Your task to perform on an android device: toggle translation in the chrome app Image 0: 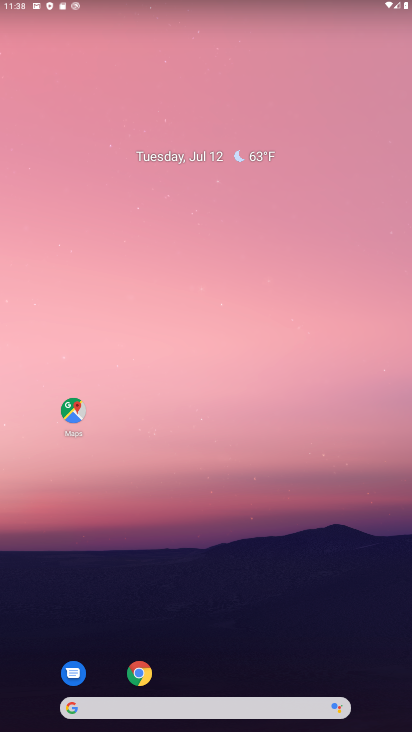
Step 0: drag from (280, 625) to (231, 221)
Your task to perform on an android device: toggle translation in the chrome app Image 1: 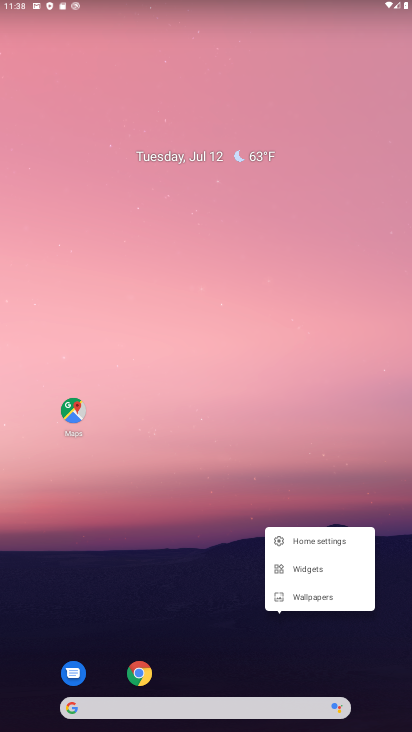
Step 1: click (127, 679)
Your task to perform on an android device: toggle translation in the chrome app Image 2: 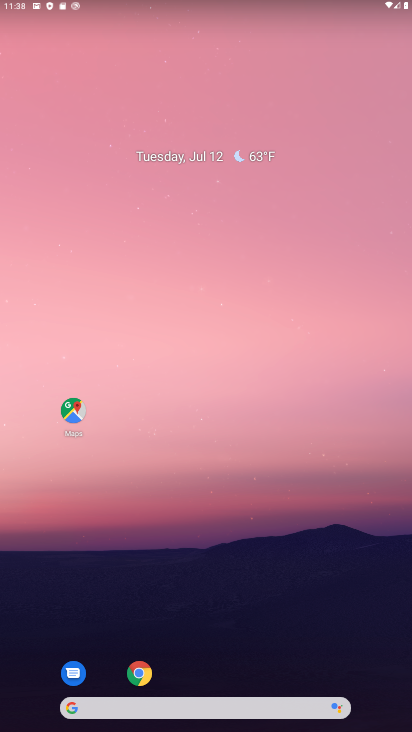
Step 2: click (137, 678)
Your task to perform on an android device: toggle translation in the chrome app Image 3: 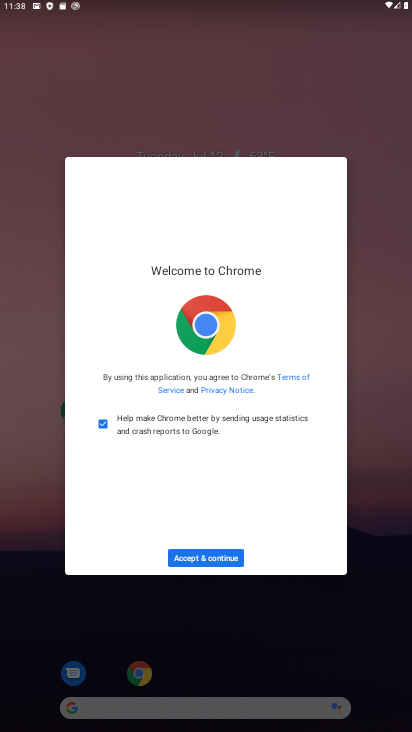
Step 3: click (206, 553)
Your task to perform on an android device: toggle translation in the chrome app Image 4: 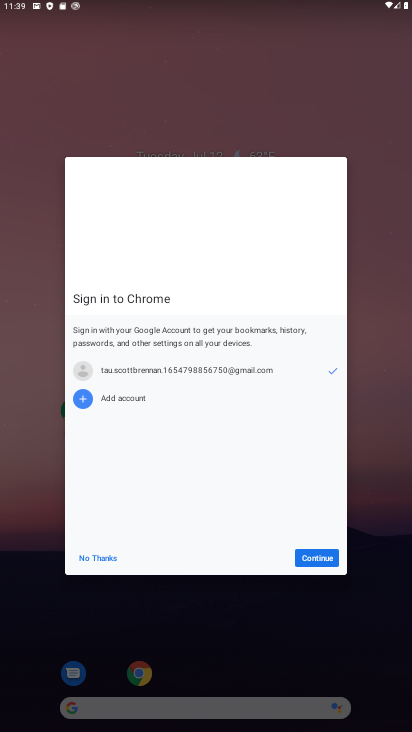
Step 4: click (317, 558)
Your task to perform on an android device: toggle translation in the chrome app Image 5: 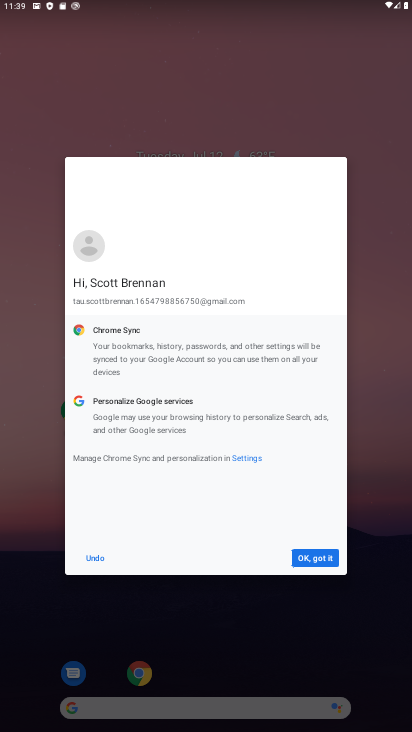
Step 5: click (317, 558)
Your task to perform on an android device: toggle translation in the chrome app Image 6: 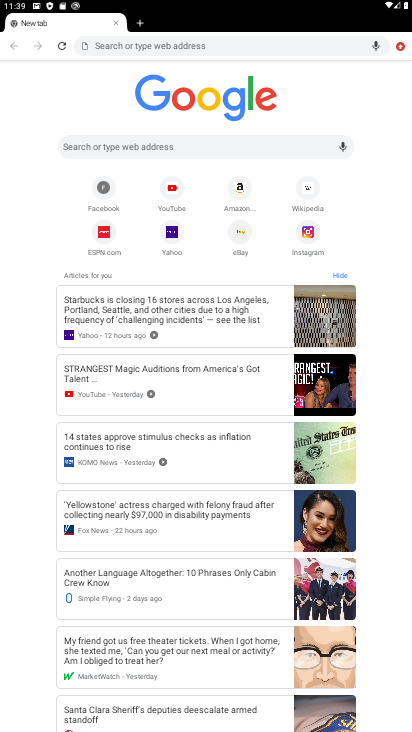
Step 6: click (402, 46)
Your task to perform on an android device: toggle translation in the chrome app Image 7: 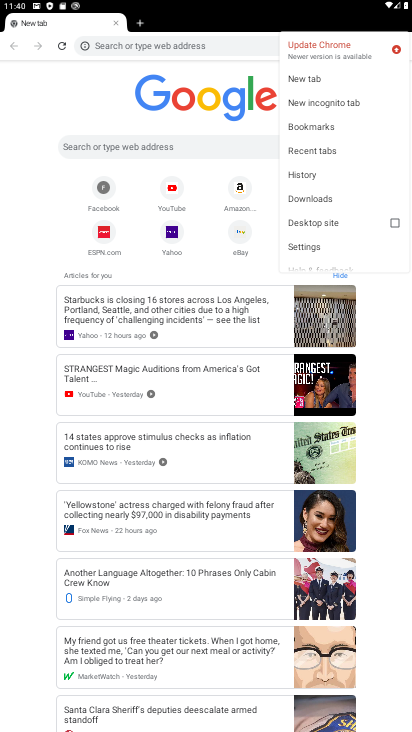
Step 7: click (323, 243)
Your task to perform on an android device: toggle translation in the chrome app Image 8: 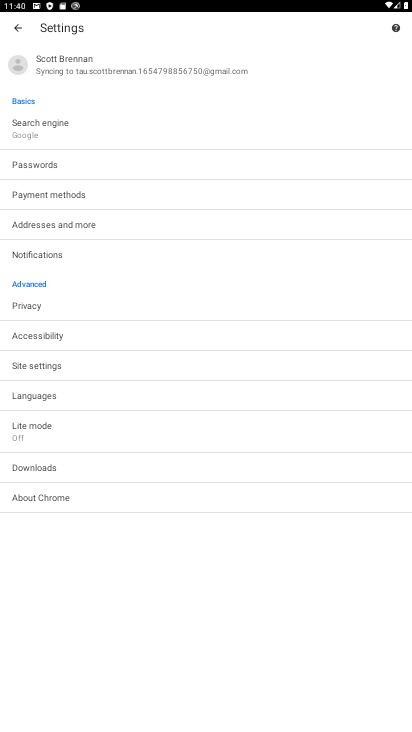
Step 8: click (53, 363)
Your task to perform on an android device: toggle translation in the chrome app Image 9: 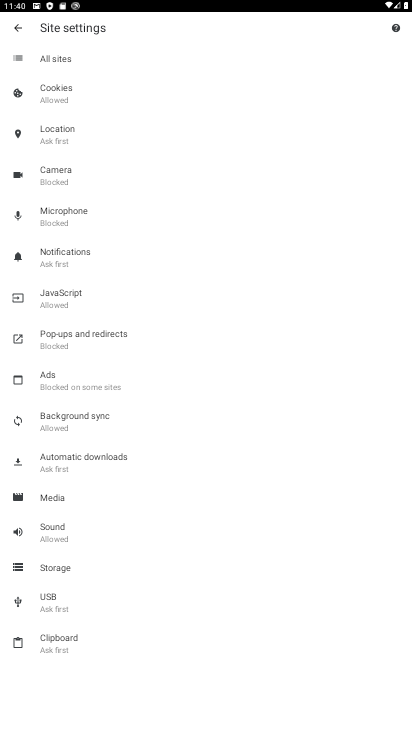
Step 9: click (9, 25)
Your task to perform on an android device: toggle translation in the chrome app Image 10: 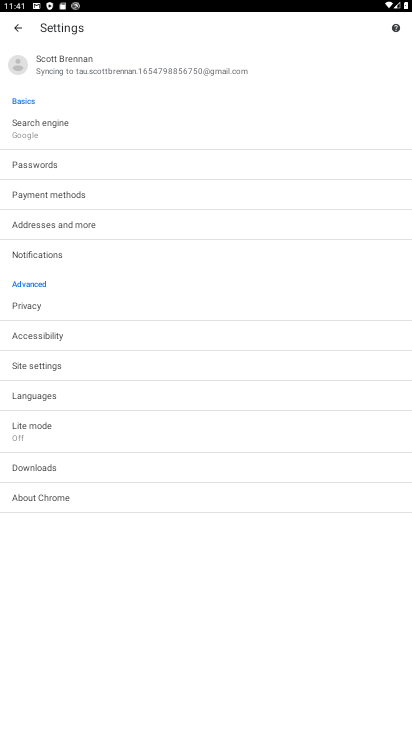
Step 10: click (14, 394)
Your task to perform on an android device: toggle translation in the chrome app Image 11: 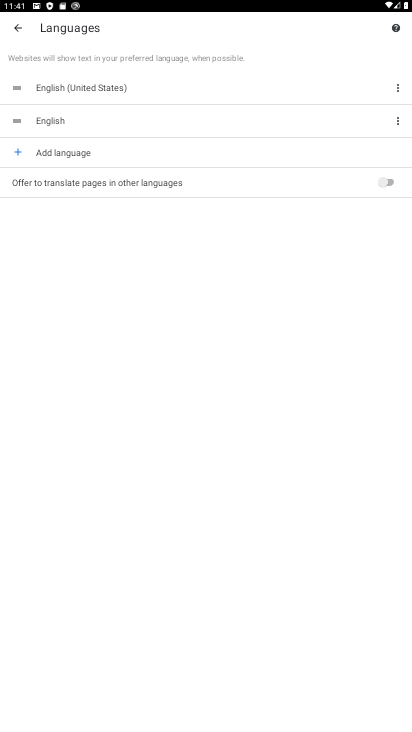
Step 11: click (260, 184)
Your task to perform on an android device: toggle translation in the chrome app Image 12: 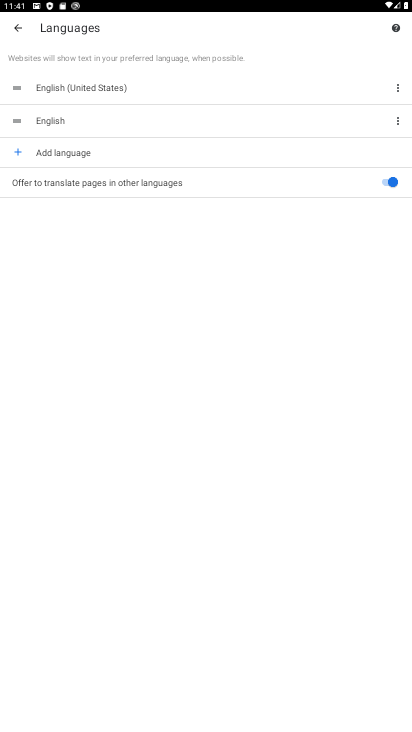
Step 12: task complete